Your task to perform on an android device: Go to Google Image 0: 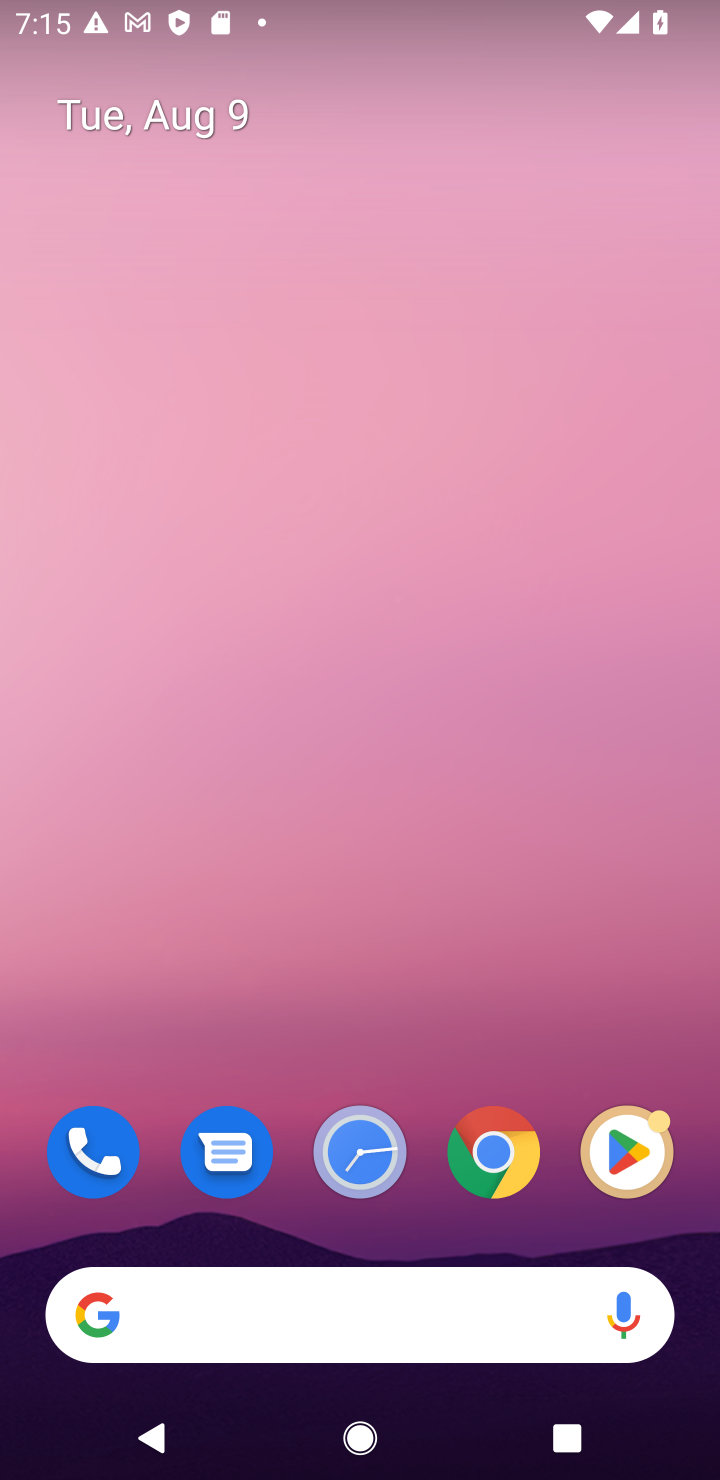
Step 0: click (324, 1276)
Your task to perform on an android device: Go to Google Image 1: 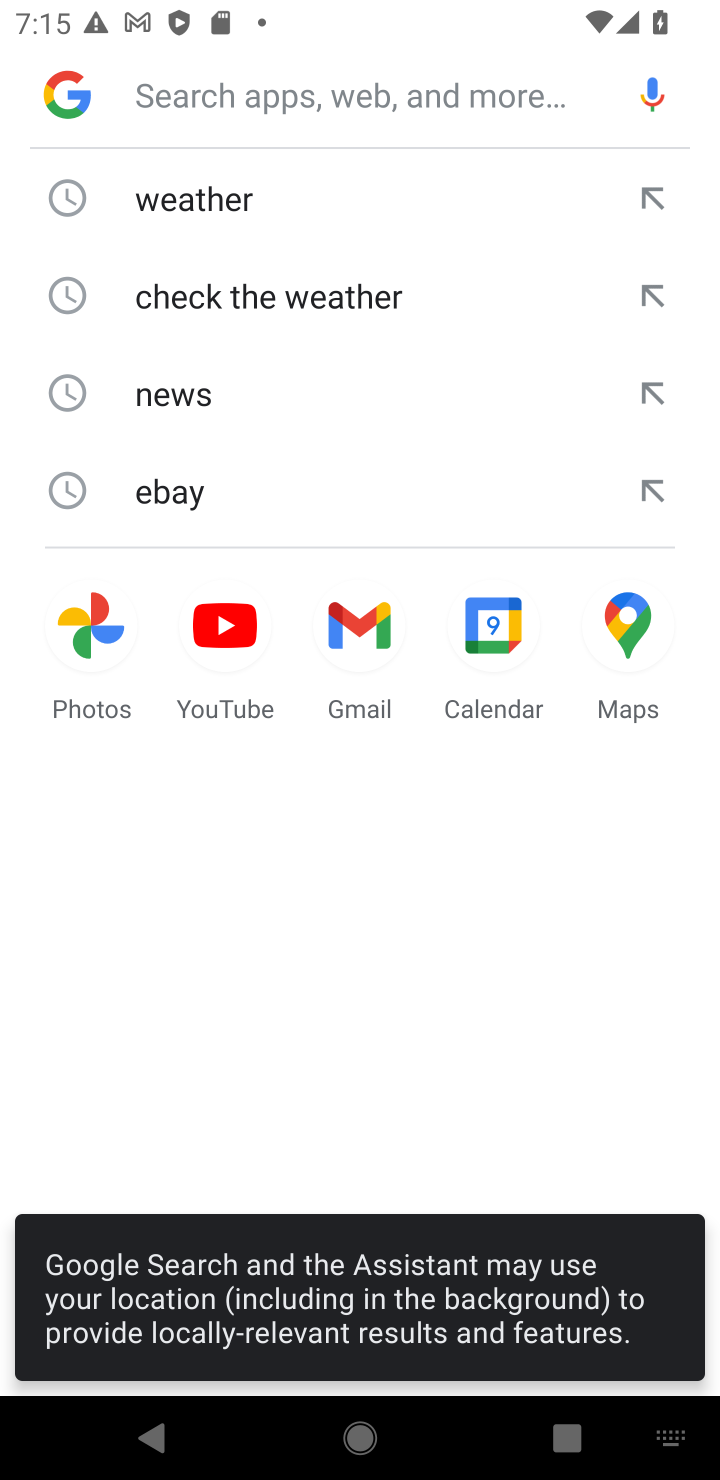
Step 1: task complete